Your task to perform on an android device: Open sound settings Image 0: 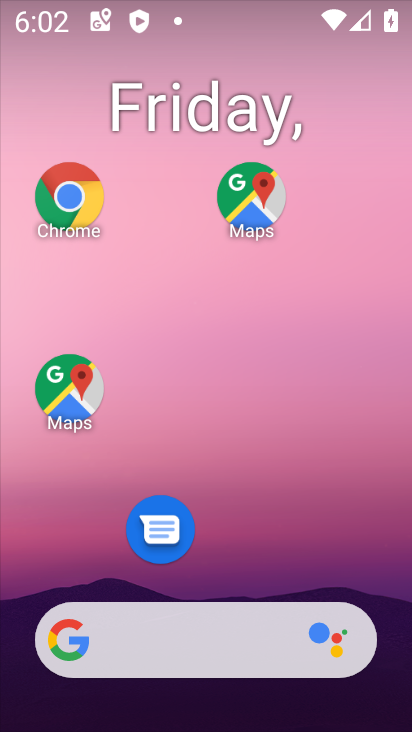
Step 0: drag from (243, 572) to (248, 126)
Your task to perform on an android device: Open sound settings Image 1: 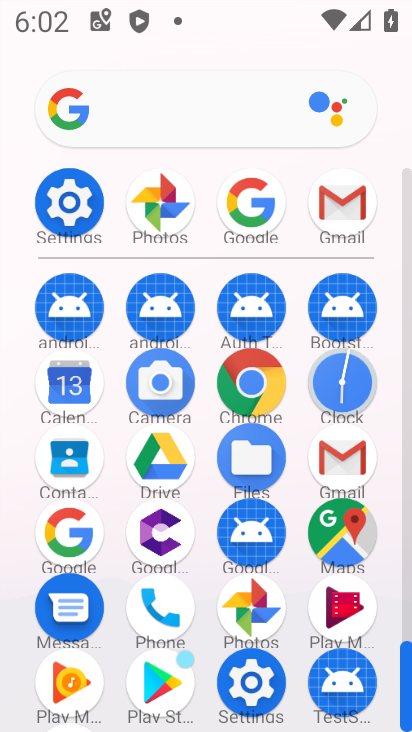
Step 1: drag from (262, 531) to (331, 89)
Your task to perform on an android device: Open sound settings Image 2: 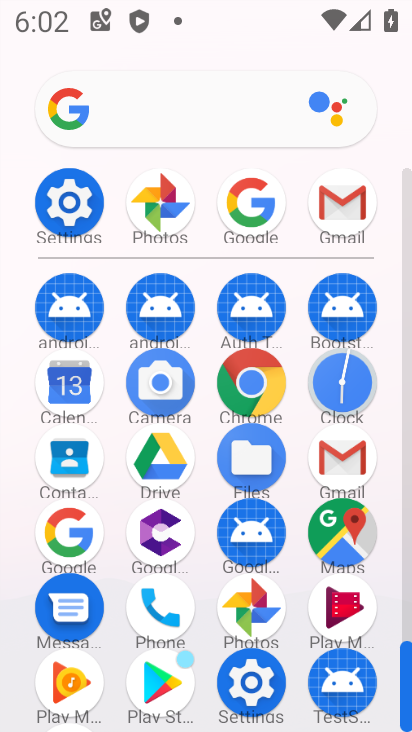
Step 2: click (73, 213)
Your task to perform on an android device: Open sound settings Image 3: 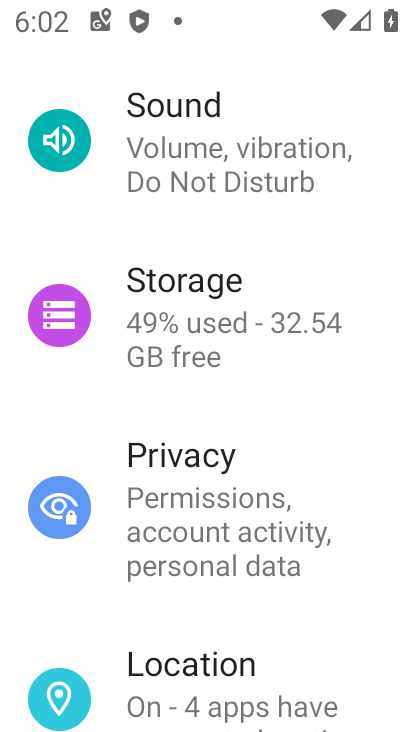
Step 3: click (179, 151)
Your task to perform on an android device: Open sound settings Image 4: 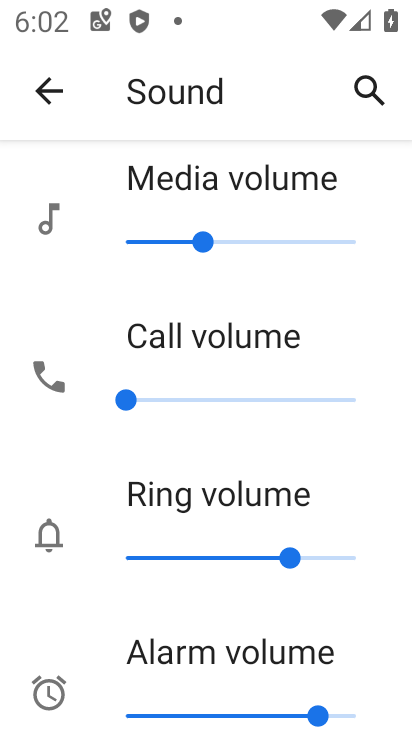
Step 4: task complete